Your task to perform on an android device: Open Google Chrome Image 0: 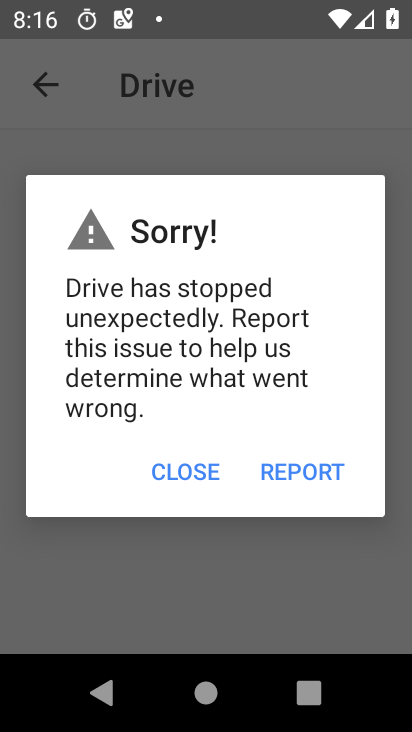
Step 0: press home button
Your task to perform on an android device: Open Google Chrome Image 1: 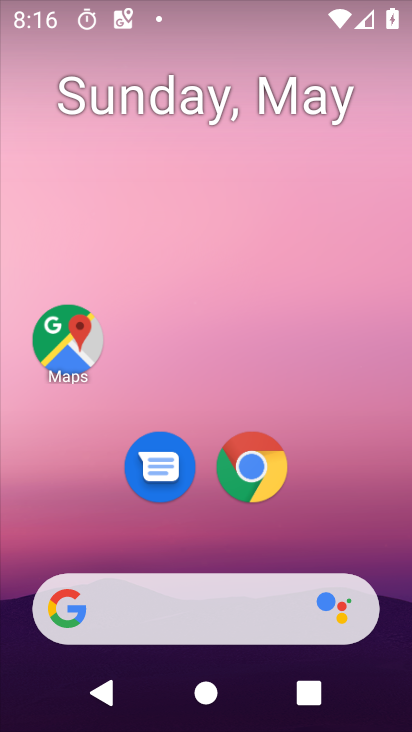
Step 1: click (239, 473)
Your task to perform on an android device: Open Google Chrome Image 2: 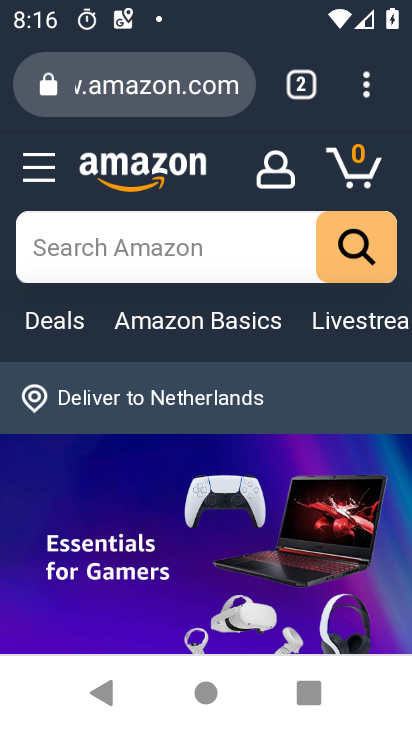
Step 2: click (297, 83)
Your task to perform on an android device: Open Google Chrome Image 3: 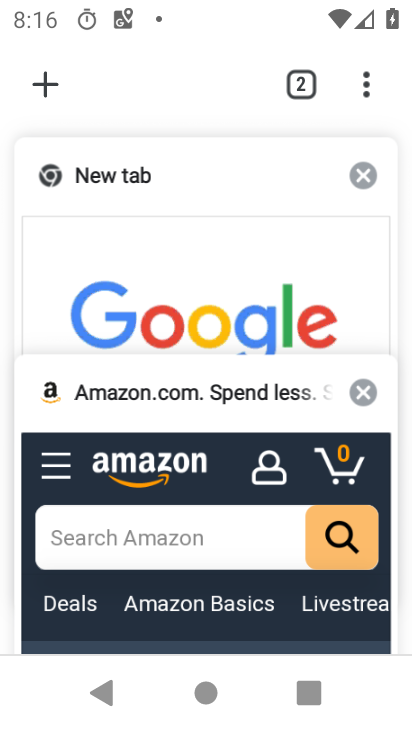
Step 3: click (362, 395)
Your task to perform on an android device: Open Google Chrome Image 4: 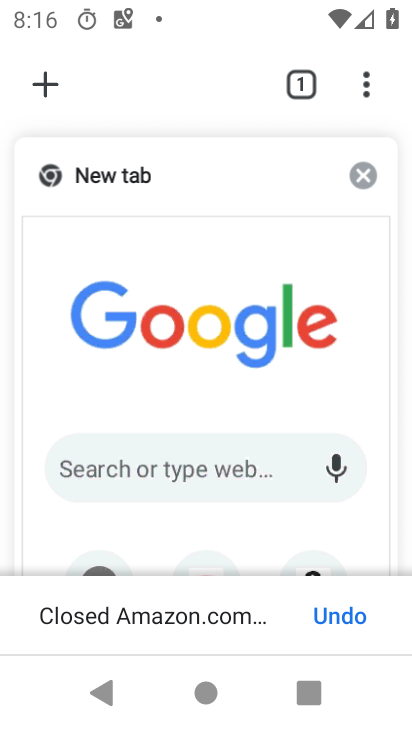
Step 4: click (279, 281)
Your task to perform on an android device: Open Google Chrome Image 5: 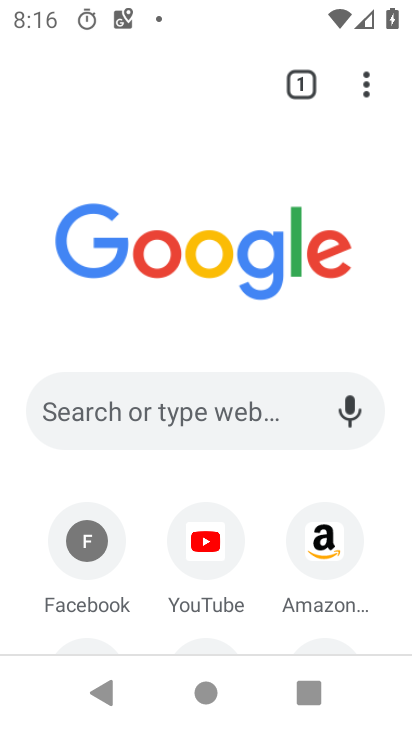
Step 5: task complete